Your task to perform on an android device: turn off sleep mode Image 0: 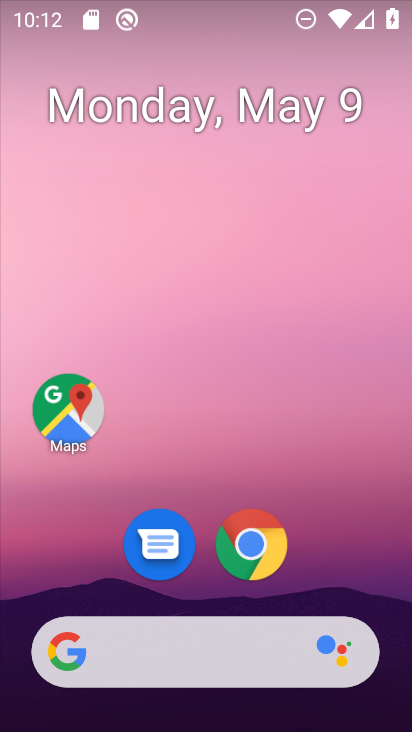
Step 0: drag from (309, 551) to (186, 230)
Your task to perform on an android device: turn off sleep mode Image 1: 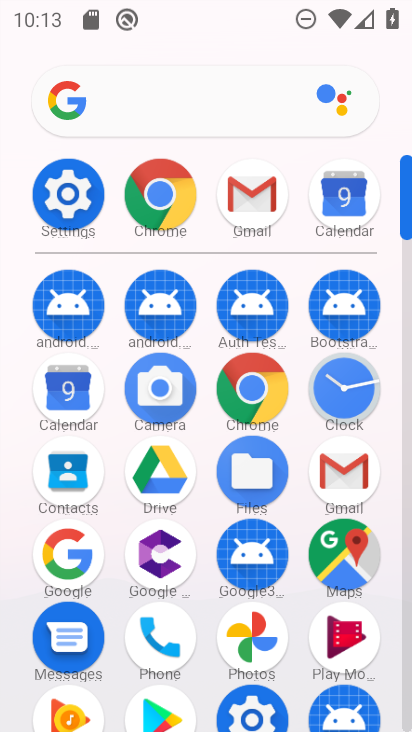
Step 1: click (66, 190)
Your task to perform on an android device: turn off sleep mode Image 2: 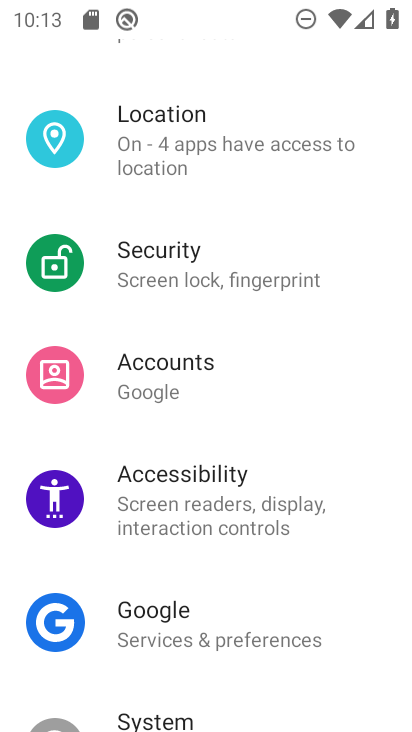
Step 2: drag from (201, 220) to (255, 718)
Your task to perform on an android device: turn off sleep mode Image 3: 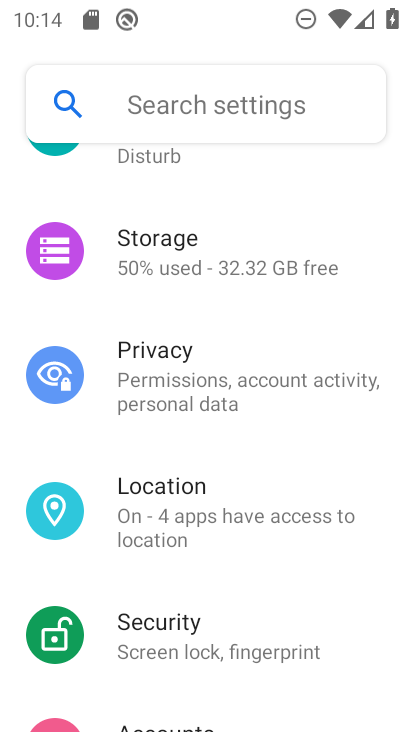
Step 3: drag from (214, 440) to (229, 729)
Your task to perform on an android device: turn off sleep mode Image 4: 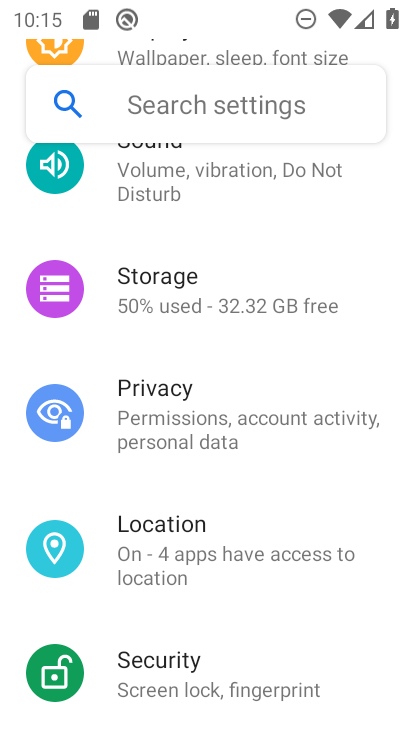
Step 4: drag from (204, 214) to (193, 678)
Your task to perform on an android device: turn off sleep mode Image 5: 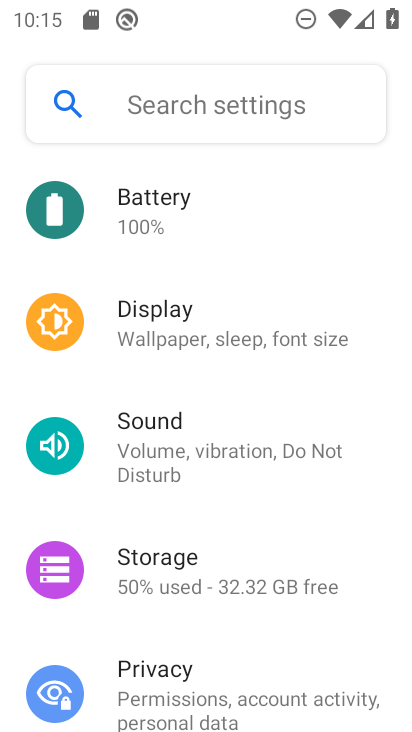
Step 5: click (198, 316)
Your task to perform on an android device: turn off sleep mode Image 6: 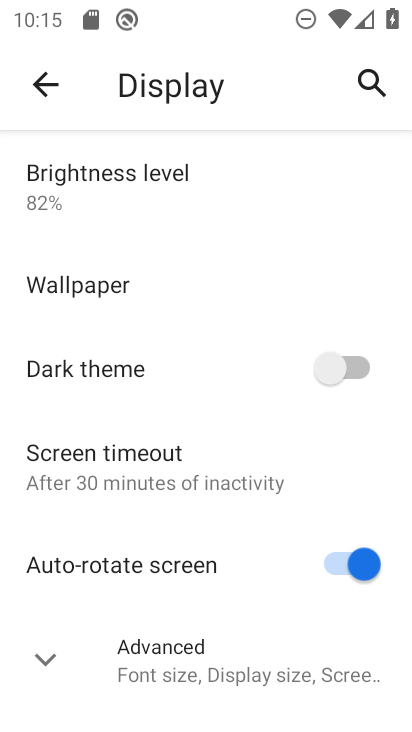
Step 6: task complete